Your task to perform on an android device: View the shopping cart on bestbuy.com. Add "asus zenbook" to the cart on bestbuy.com, then select checkout. Image 0: 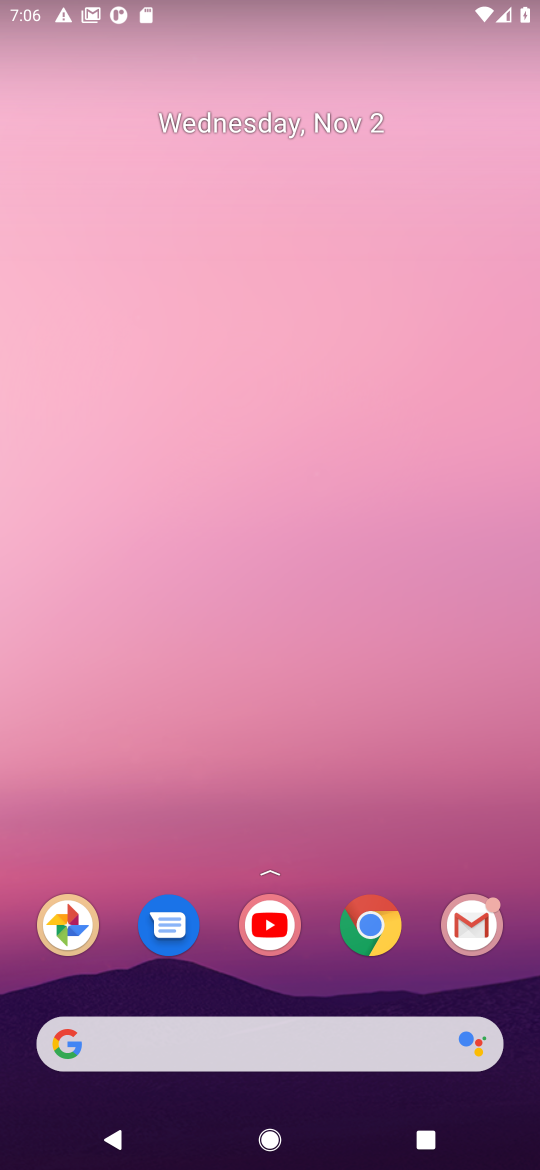
Step 0: press home button
Your task to perform on an android device: View the shopping cart on bestbuy.com. Add "asus zenbook" to the cart on bestbuy.com, then select checkout. Image 1: 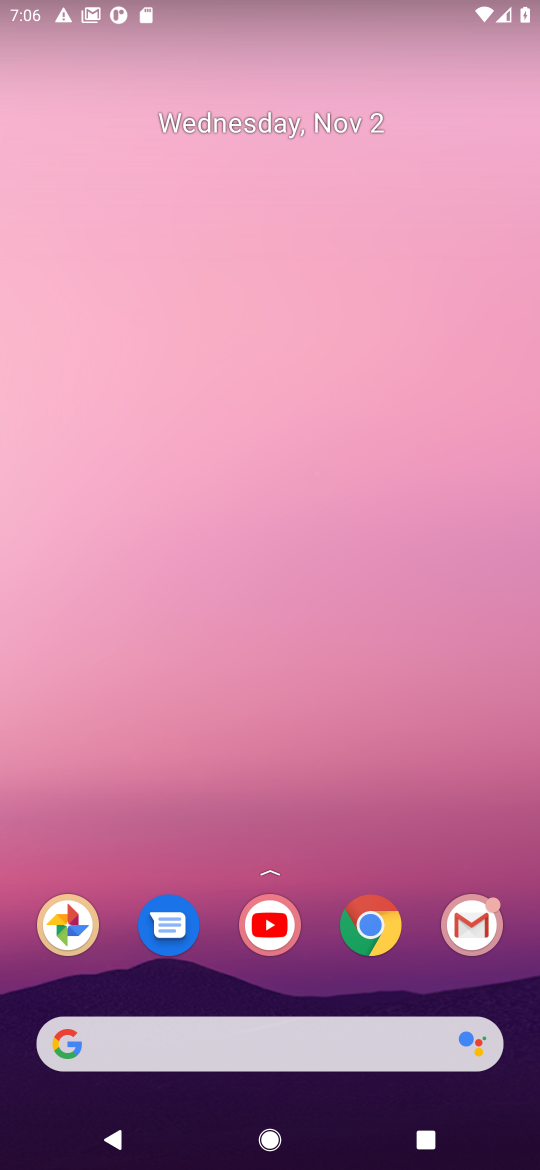
Step 1: click (102, 1041)
Your task to perform on an android device: View the shopping cart on bestbuy.com. Add "asus zenbook" to the cart on bestbuy.com, then select checkout. Image 2: 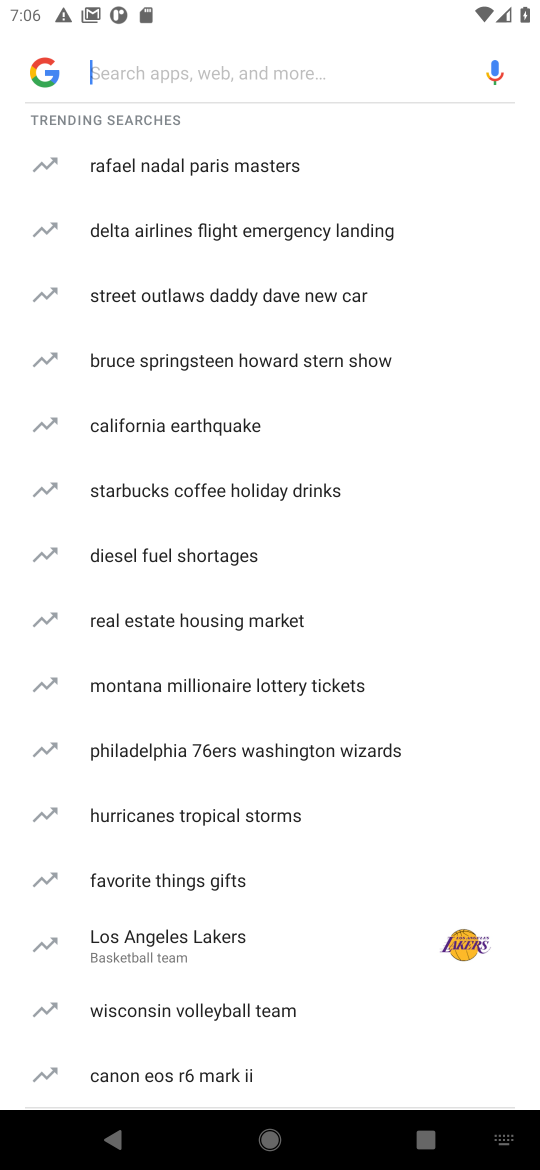
Step 2: type "bestbuy.com"
Your task to perform on an android device: View the shopping cart on bestbuy.com. Add "asus zenbook" to the cart on bestbuy.com, then select checkout. Image 3: 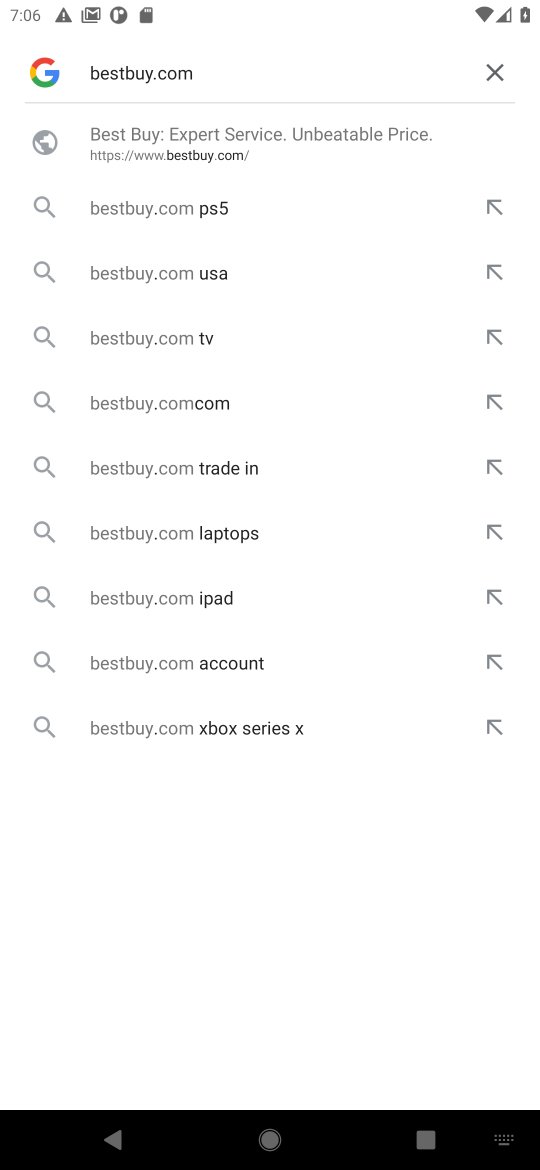
Step 3: press enter
Your task to perform on an android device: View the shopping cart on bestbuy.com. Add "asus zenbook" to the cart on bestbuy.com, then select checkout. Image 4: 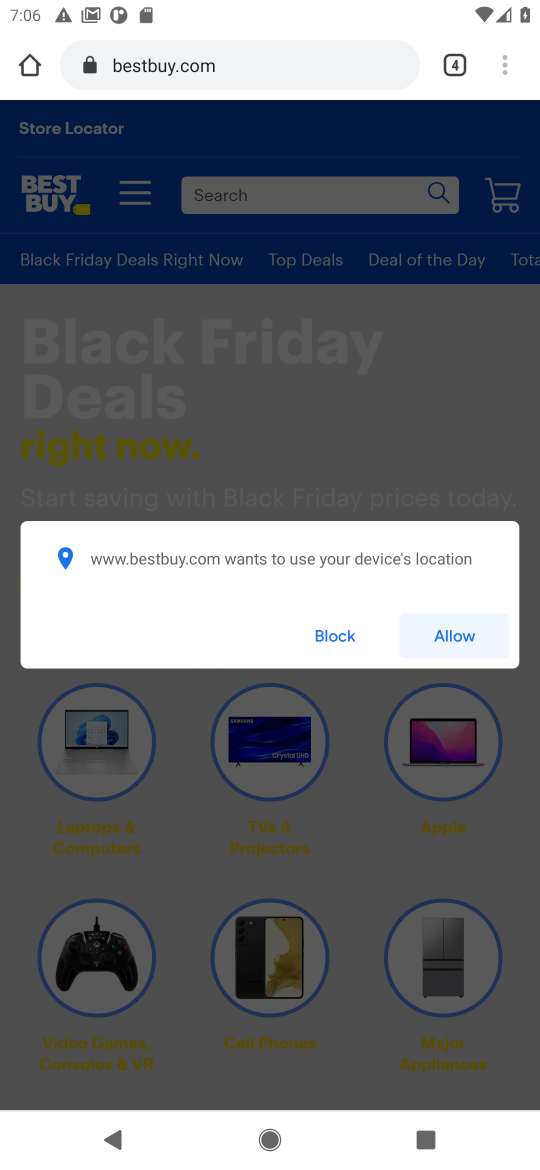
Step 4: click (328, 635)
Your task to perform on an android device: View the shopping cart on bestbuy.com. Add "asus zenbook" to the cart on bestbuy.com, then select checkout. Image 5: 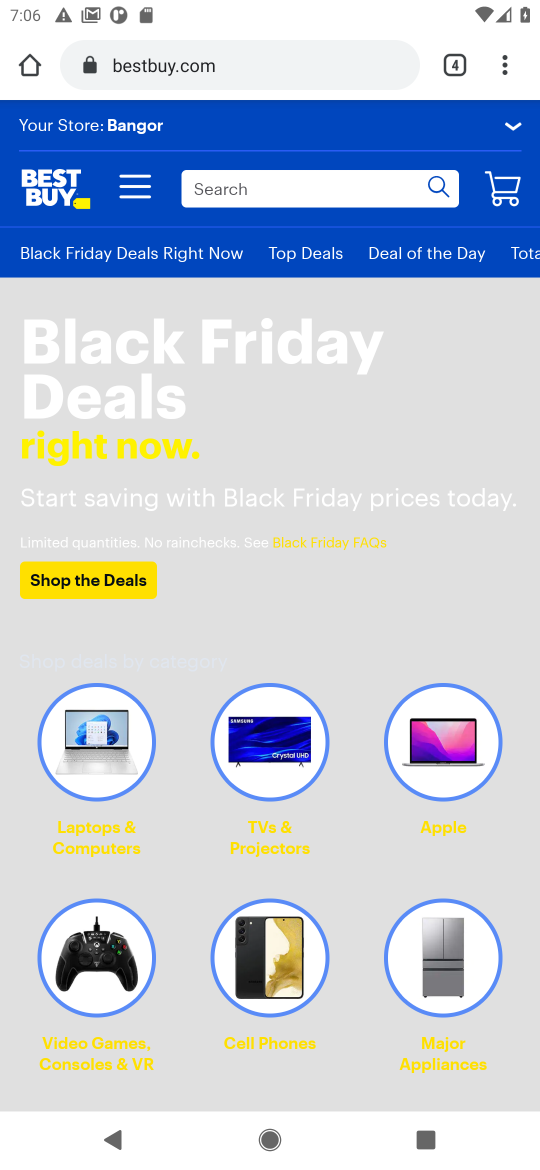
Step 5: click (517, 192)
Your task to perform on an android device: View the shopping cart on bestbuy.com. Add "asus zenbook" to the cart on bestbuy.com, then select checkout. Image 6: 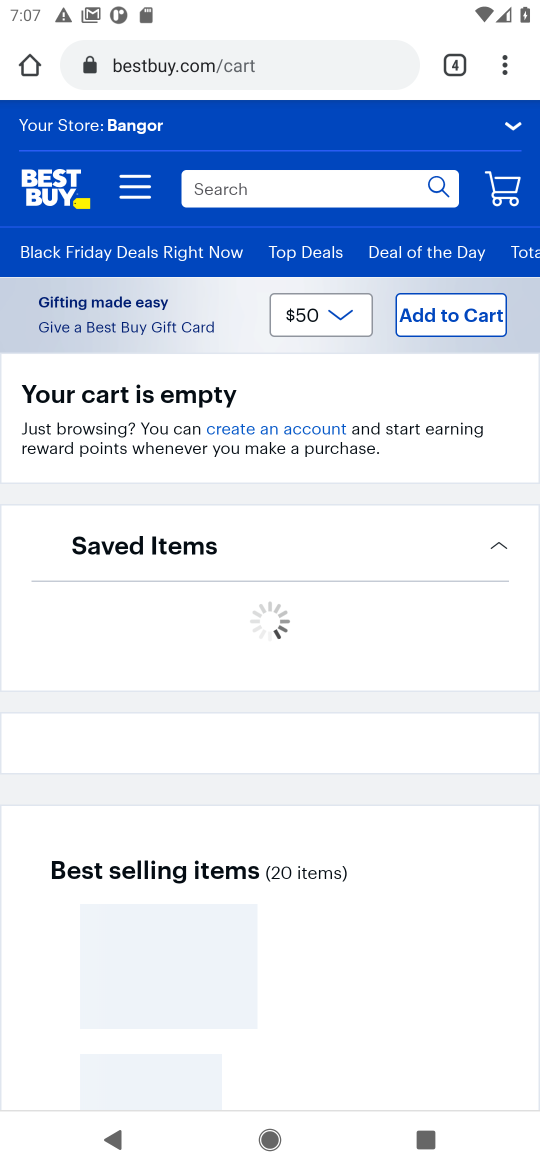
Step 6: click (228, 179)
Your task to perform on an android device: View the shopping cart on bestbuy.com. Add "asus zenbook" to the cart on bestbuy.com, then select checkout. Image 7: 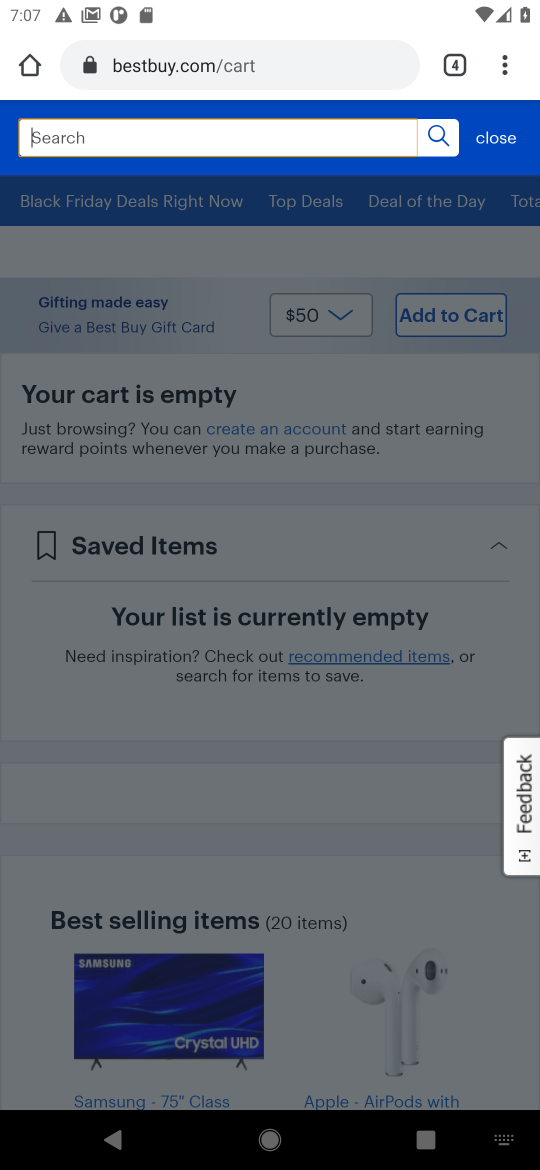
Step 7: type "asus zenbook"
Your task to perform on an android device: View the shopping cart on bestbuy.com. Add "asus zenbook" to the cart on bestbuy.com, then select checkout. Image 8: 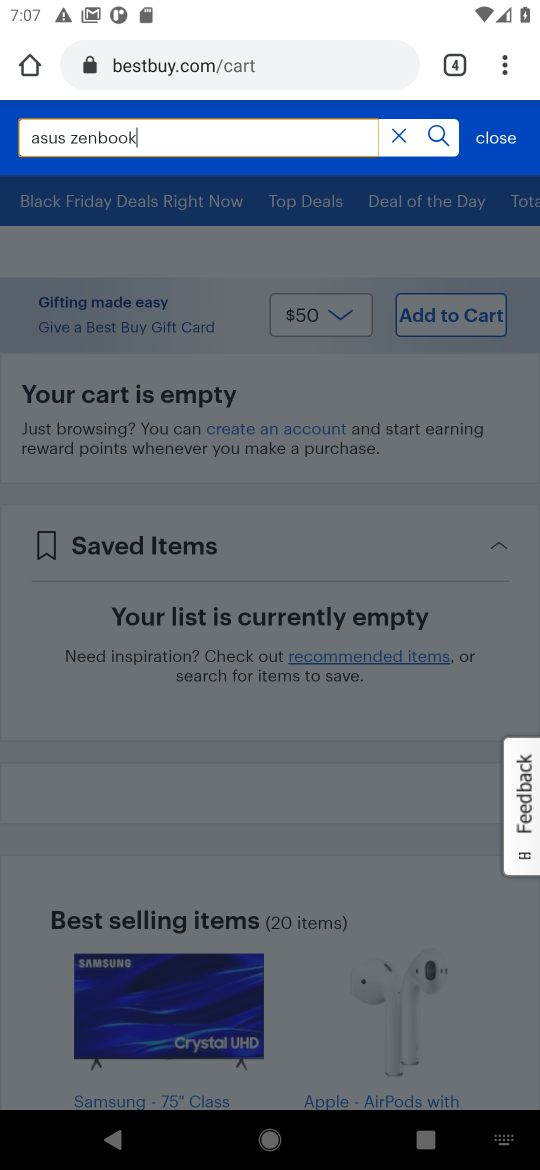
Step 8: press enter
Your task to perform on an android device: View the shopping cart on bestbuy.com. Add "asus zenbook" to the cart on bestbuy.com, then select checkout. Image 9: 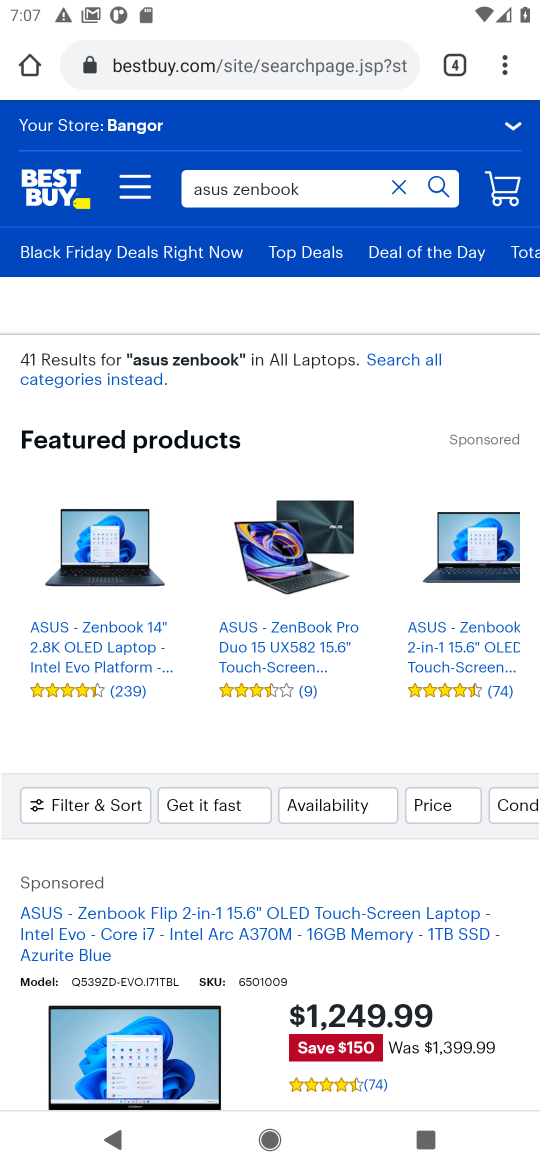
Step 9: drag from (321, 920) to (371, 521)
Your task to perform on an android device: View the shopping cart on bestbuy.com. Add "asus zenbook" to the cart on bestbuy.com, then select checkout. Image 10: 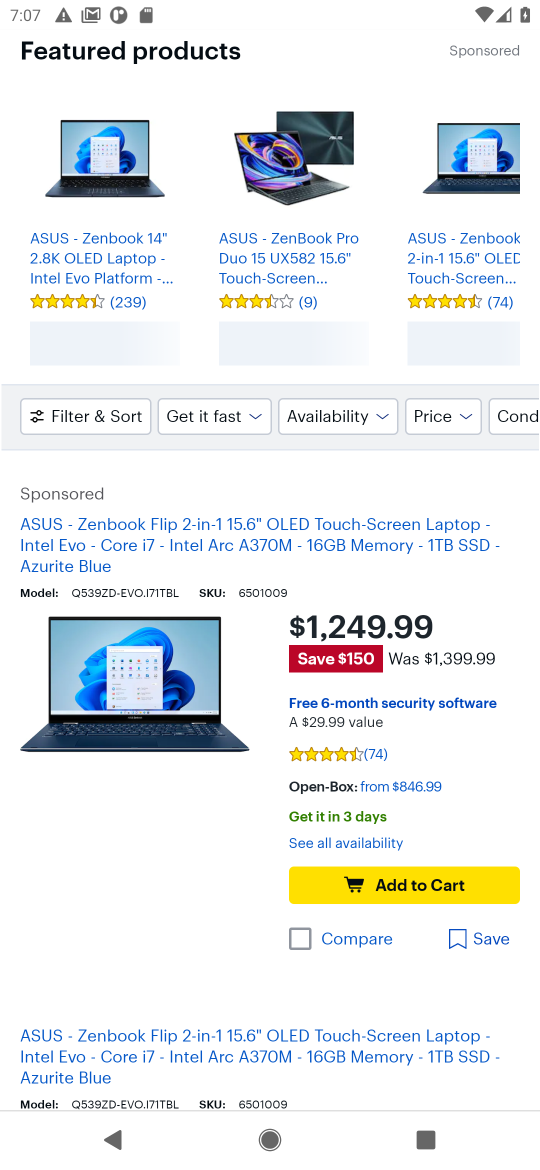
Step 10: click (423, 878)
Your task to perform on an android device: View the shopping cart on bestbuy.com. Add "asus zenbook" to the cart on bestbuy.com, then select checkout. Image 11: 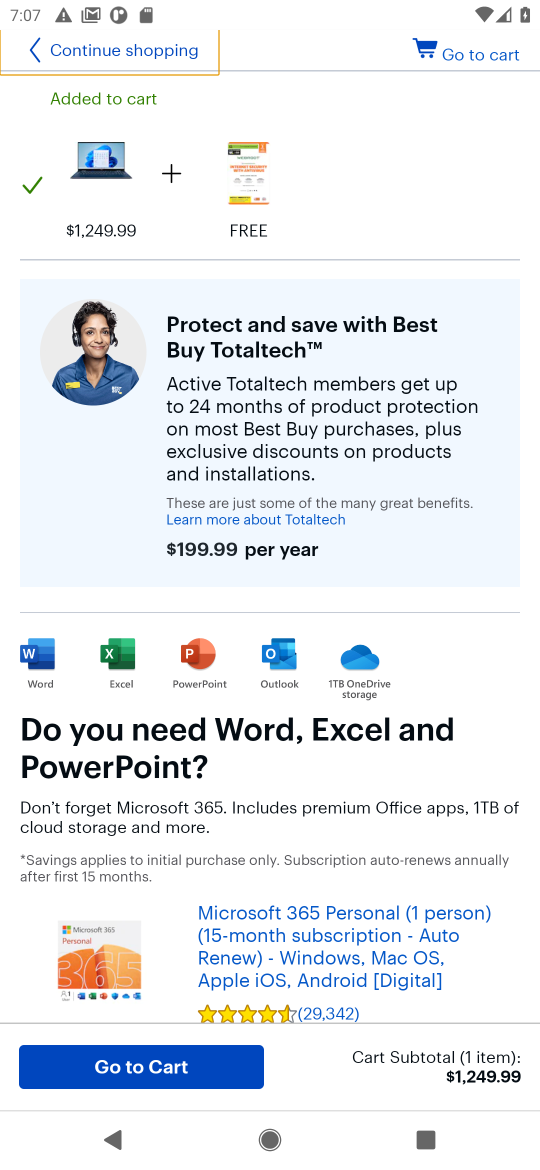
Step 11: click (107, 1067)
Your task to perform on an android device: View the shopping cart on bestbuy.com. Add "asus zenbook" to the cart on bestbuy.com, then select checkout. Image 12: 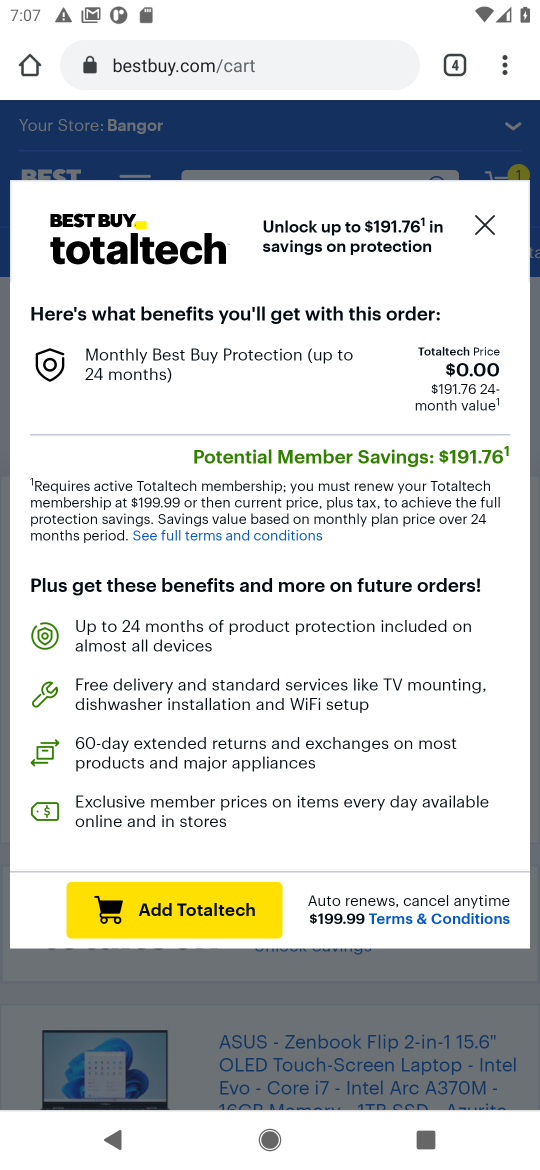
Step 12: click (487, 227)
Your task to perform on an android device: View the shopping cart on bestbuy.com. Add "asus zenbook" to the cart on bestbuy.com, then select checkout. Image 13: 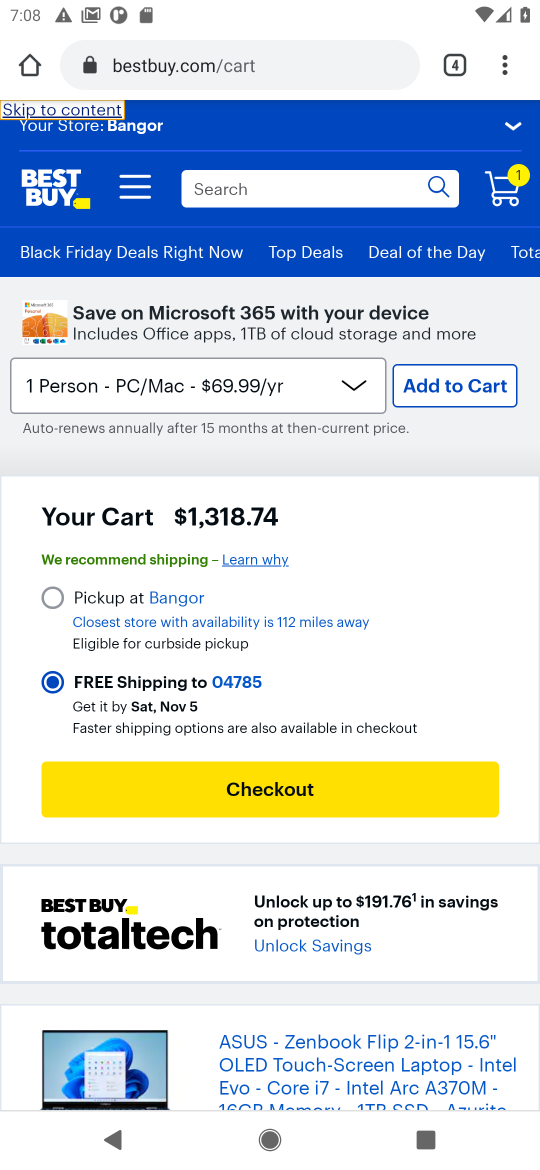
Step 13: click (279, 783)
Your task to perform on an android device: View the shopping cart on bestbuy.com. Add "asus zenbook" to the cart on bestbuy.com, then select checkout. Image 14: 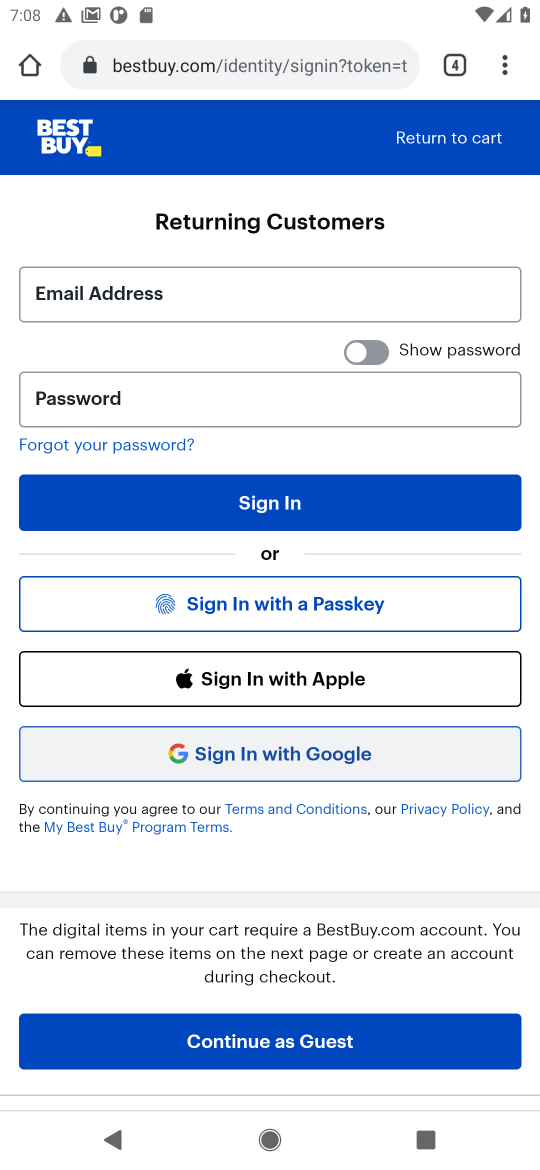
Step 14: task complete